Your task to perform on an android device: turn off sleep mode Image 0: 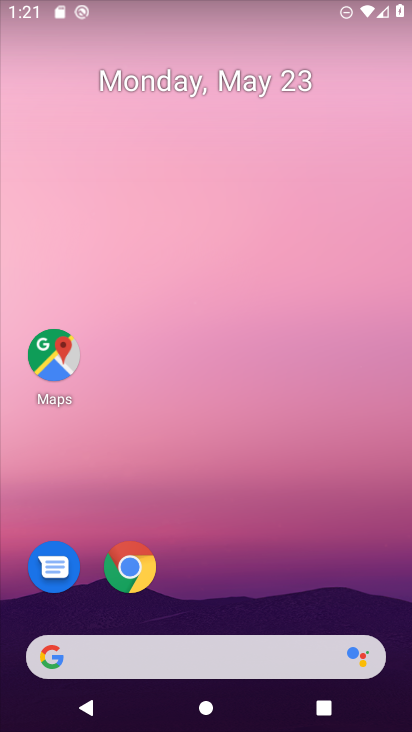
Step 0: drag from (207, 580) to (203, 133)
Your task to perform on an android device: turn off sleep mode Image 1: 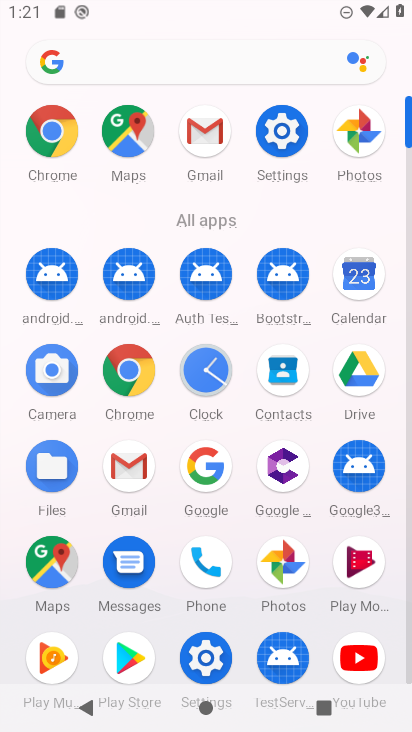
Step 1: click (207, 643)
Your task to perform on an android device: turn off sleep mode Image 2: 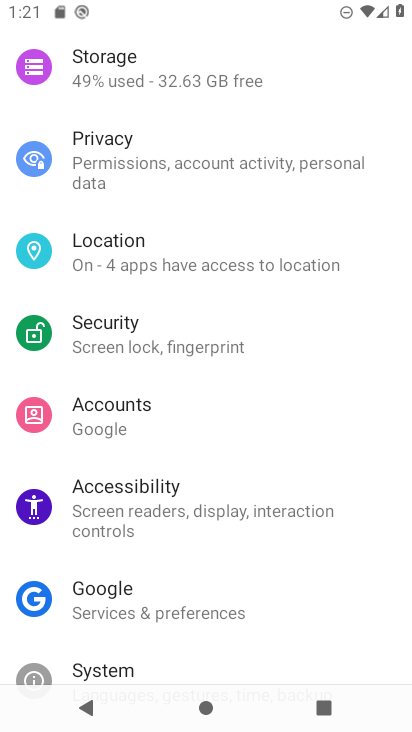
Step 2: drag from (83, 133) to (32, 581)
Your task to perform on an android device: turn off sleep mode Image 3: 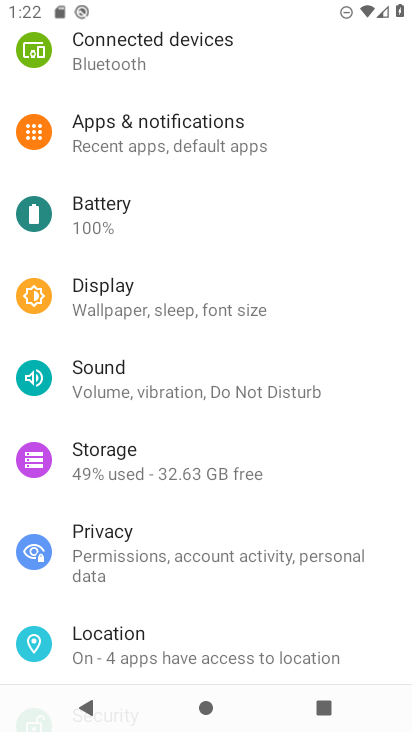
Step 3: click (136, 317)
Your task to perform on an android device: turn off sleep mode Image 4: 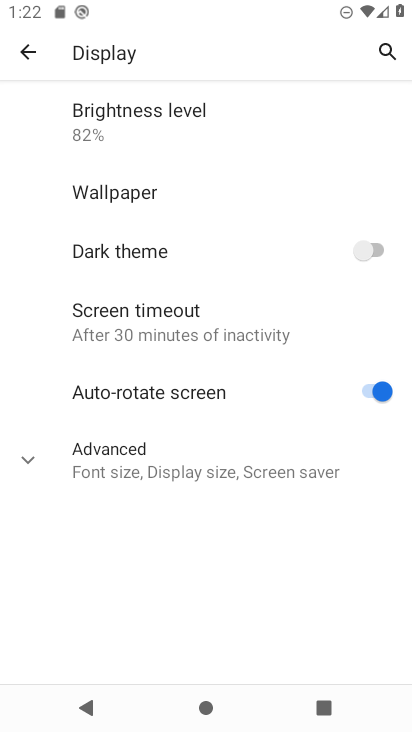
Step 4: task complete